Your task to perform on an android device: change your default location settings in chrome Image 0: 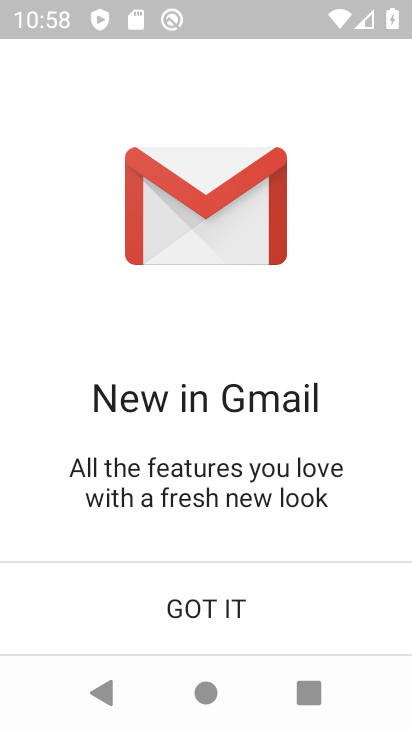
Step 0: press home button
Your task to perform on an android device: change your default location settings in chrome Image 1: 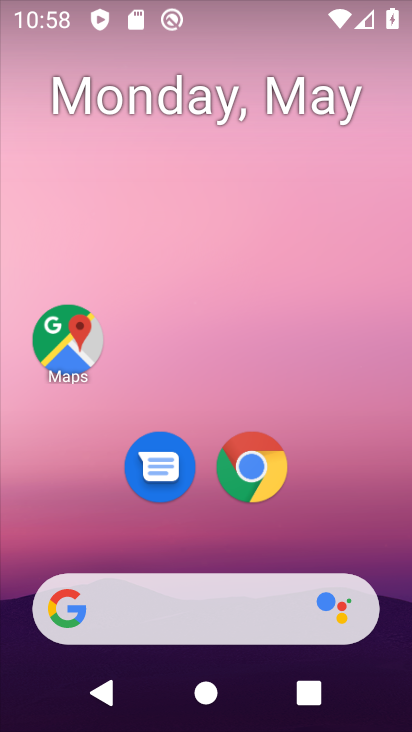
Step 1: click (236, 467)
Your task to perform on an android device: change your default location settings in chrome Image 2: 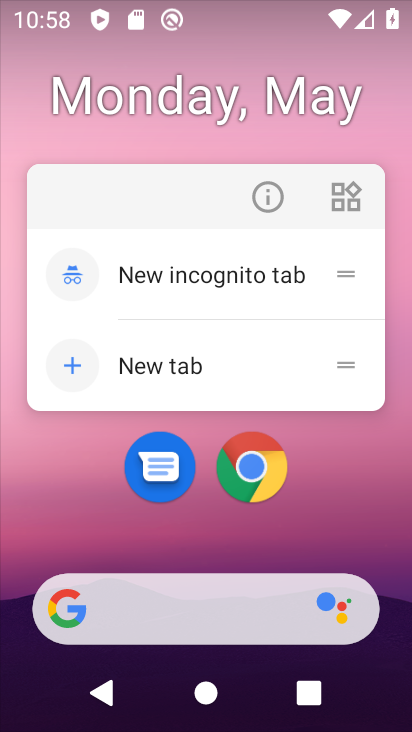
Step 2: click (258, 472)
Your task to perform on an android device: change your default location settings in chrome Image 3: 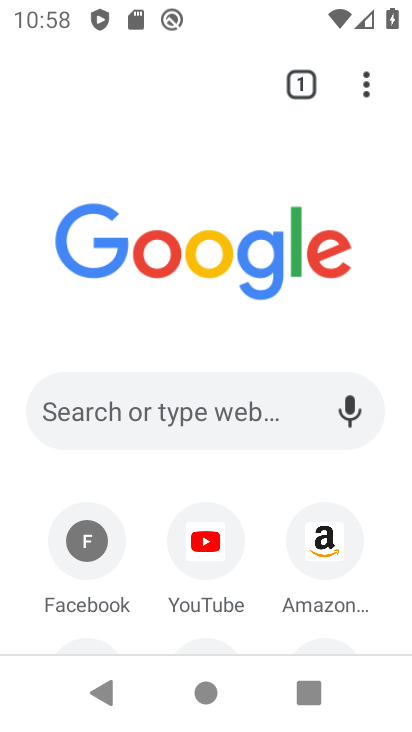
Step 3: click (366, 90)
Your task to perform on an android device: change your default location settings in chrome Image 4: 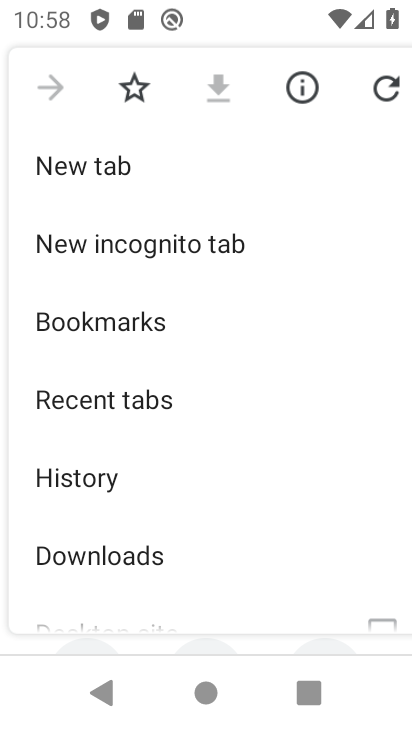
Step 4: drag from (212, 481) to (223, 360)
Your task to perform on an android device: change your default location settings in chrome Image 5: 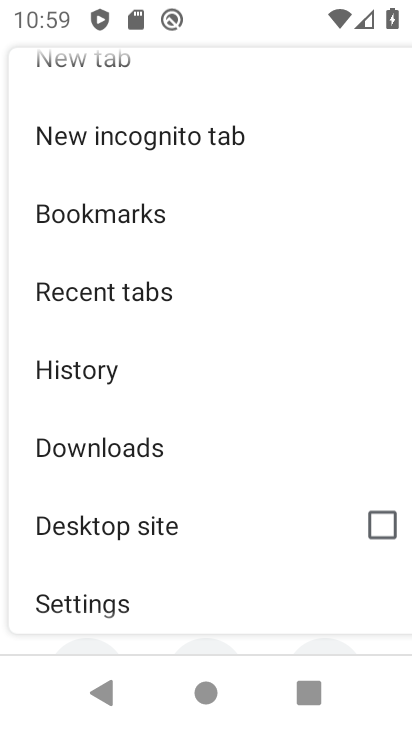
Step 5: click (138, 579)
Your task to perform on an android device: change your default location settings in chrome Image 6: 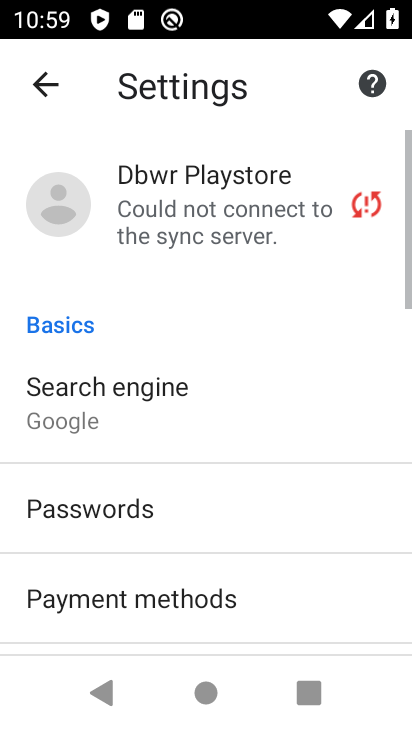
Step 6: drag from (155, 557) to (188, 282)
Your task to perform on an android device: change your default location settings in chrome Image 7: 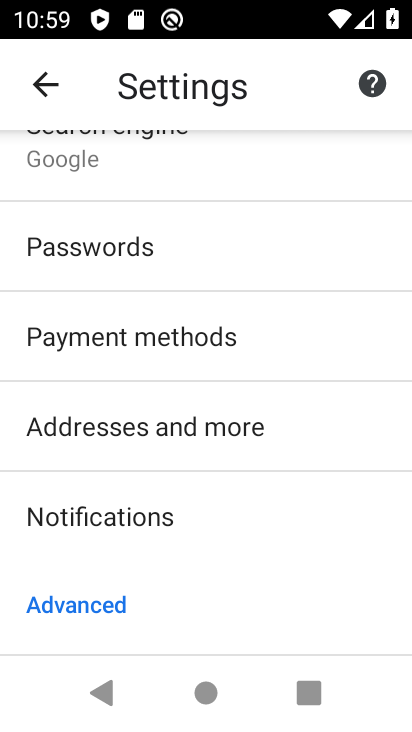
Step 7: click (187, 426)
Your task to perform on an android device: change your default location settings in chrome Image 8: 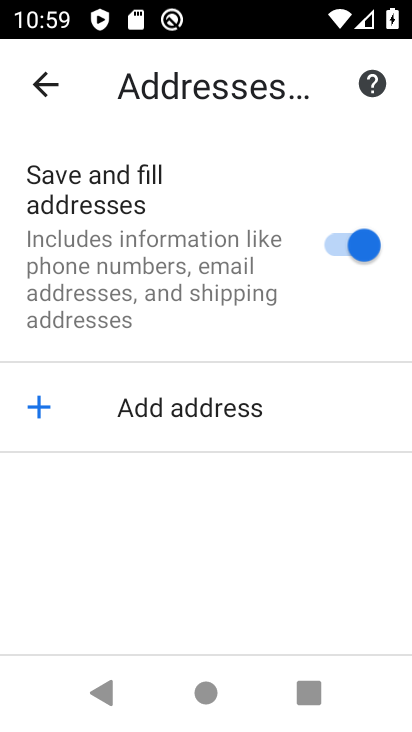
Step 8: click (174, 392)
Your task to perform on an android device: change your default location settings in chrome Image 9: 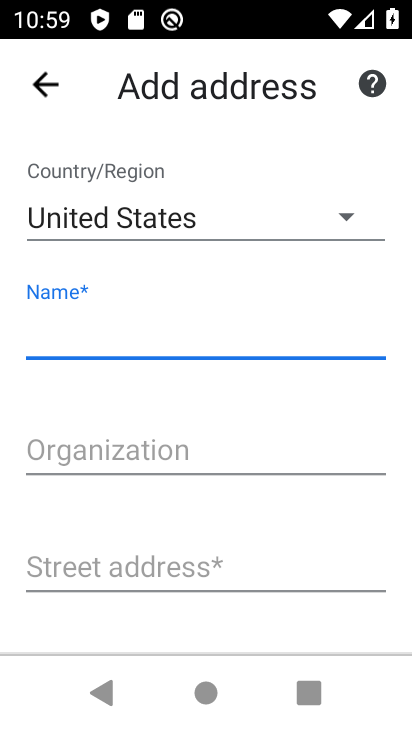
Step 9: task complete